Your task to perform on an android device: Open the calendar and show me this week's events? Image 0: 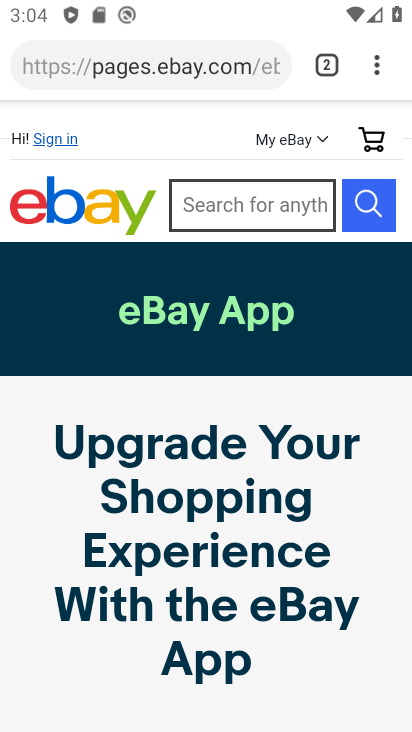
Step 0: press back button
Your task to perform on an android device: Open the calendar and show me this week's events? Image 1: 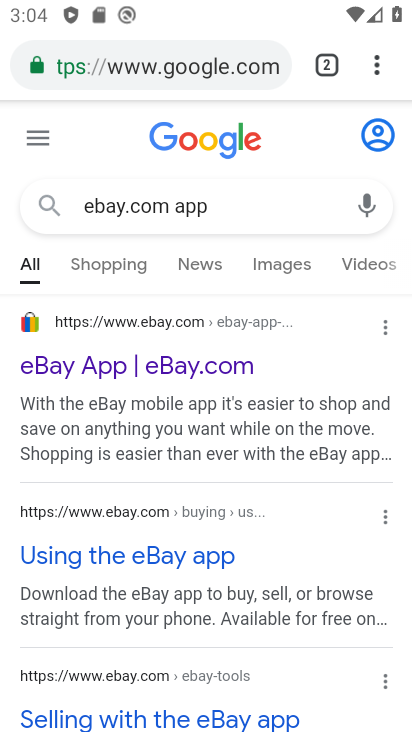
Step 1: press back button
Your task to perform on an android device: Open the calendar and show me this week's events? Image 2: 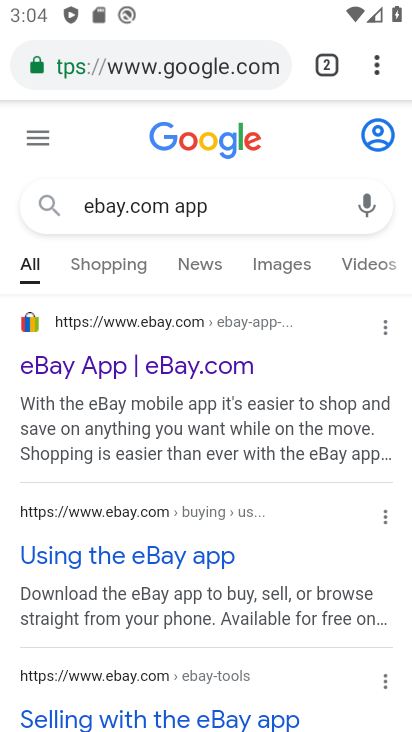
Step 2: press back button
Your task to perform on an android device: Open the calendar and show me this week's events? Image 3: 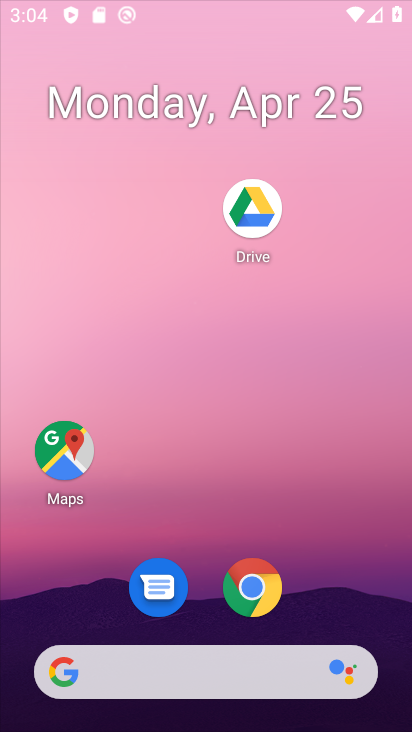
Step 3: press home button
Your task to perform on an android device: Open the calendar and show me this week's events? Image 4: 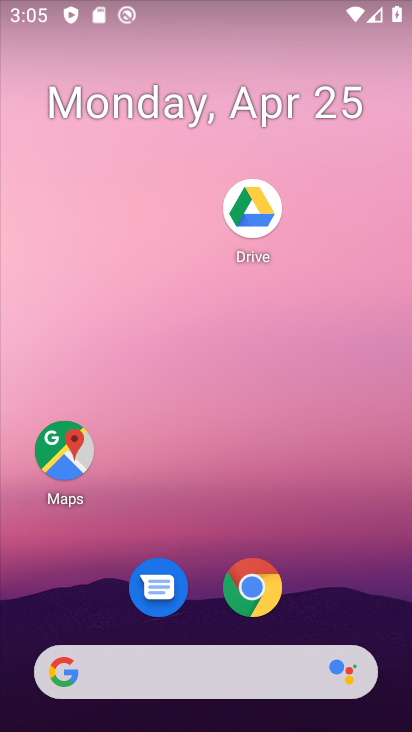
Step 4: drag from (307, 641) to (402, 96)
Your task to perform on an android device: Open the calendar and show me this week's events? Image 5: 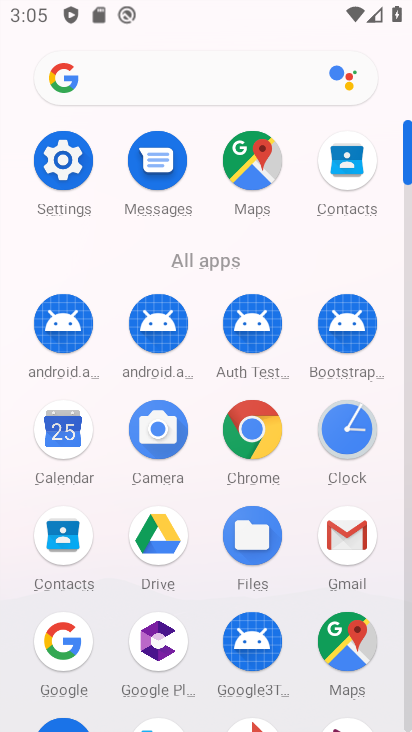
Step 5: click (74, 421)
Your task to perform on an android device: Open the calendar and show me this week's events? Image 6: 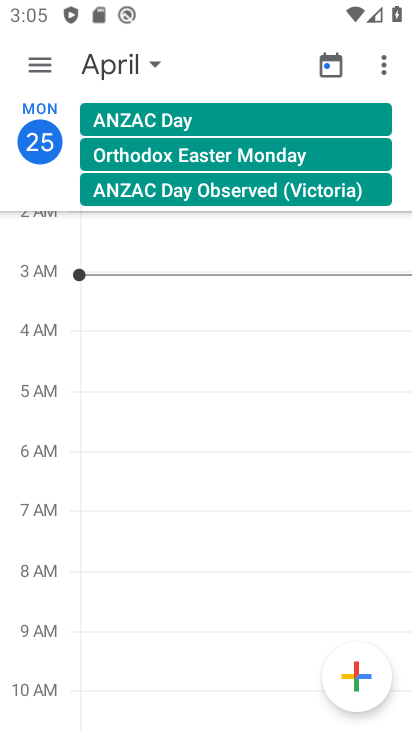
Step 6: click (36, 70)
Your task to perform on an android device: Open the calendar and show me this week's events? Image 7: 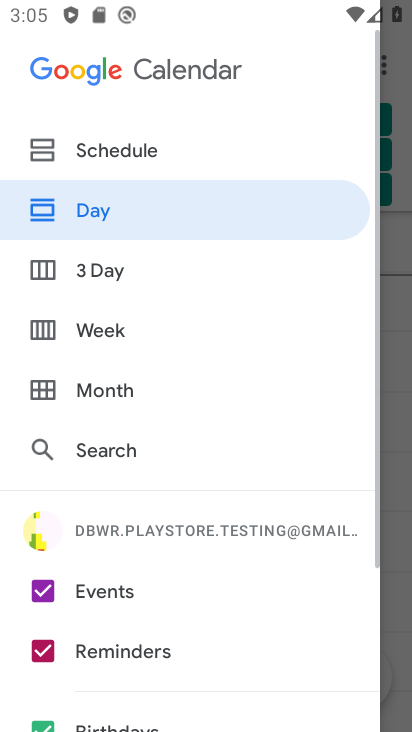
Step 7: click (115, 333)
Your task to perform on an android device: Open the calendar and show me this week's events? Image 8: 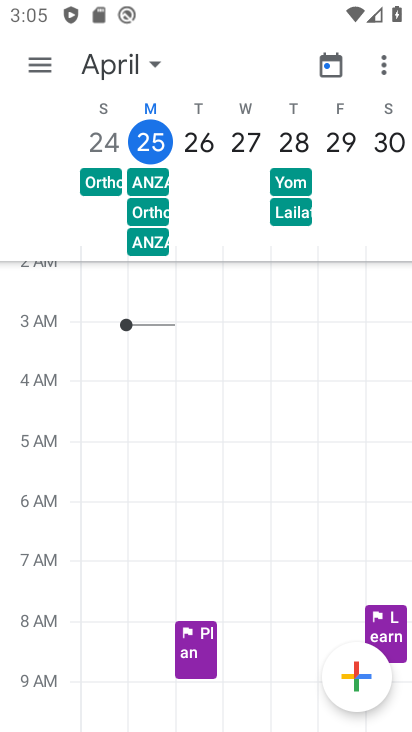
Step 8: task complete